Your task to perform on an android device: toggle data saver in the chrome app Image 0: 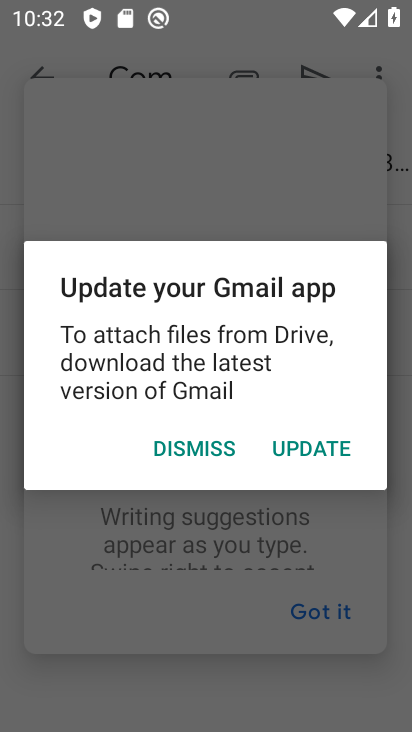
Step 0: press home button
Your task to perform on an android device: toggle data saver in the chrome app Image 1: 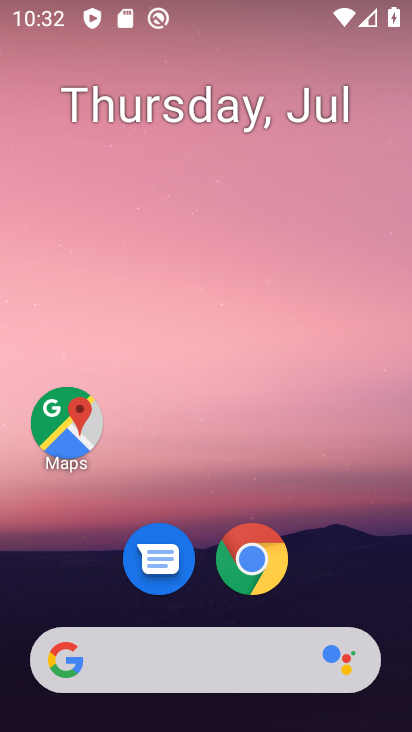
Step 1: click (265, 563)
Your task to perform on an android device: toggle data saver in the chrome app Image 2: 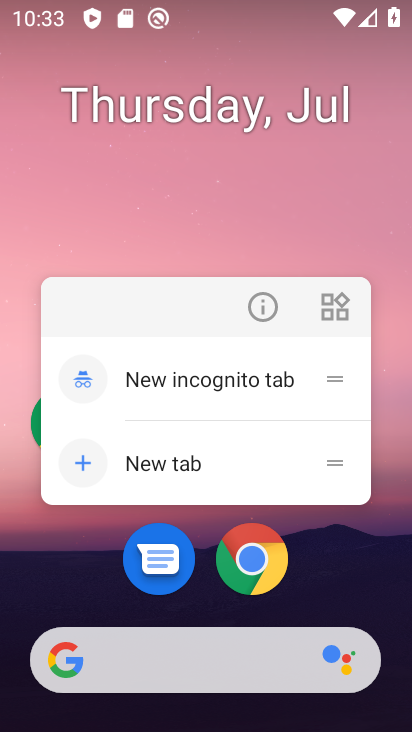
Step 2: click (248, 556)
Your task to perform on an android device: toggle data saver in the chrome app Image 3: 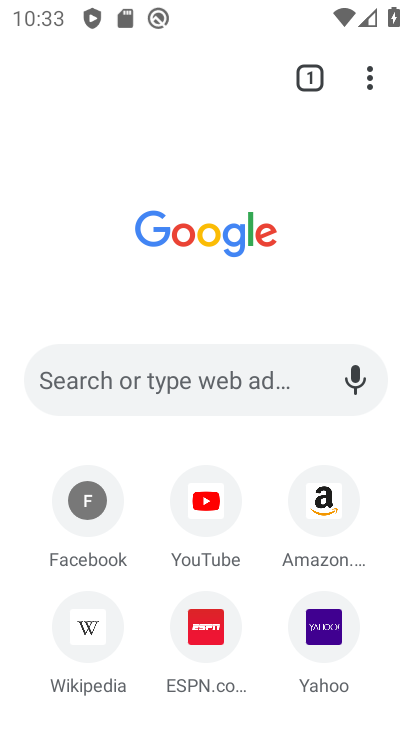
Step 3: drag from (374, 77) to (133, 603)
Your task to perform on an android device: toggle data saver in the chrome app Image 4: 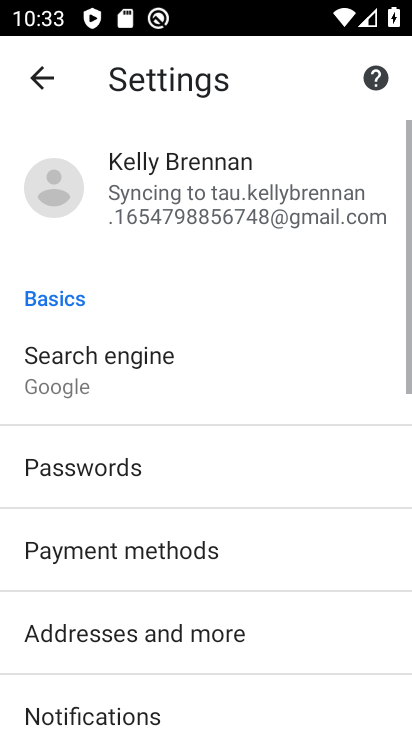
Step 4: drag from (135, 663) to (258, 55)
Your task to perform on an android device: toggle data saver in the chrome app Image 5: 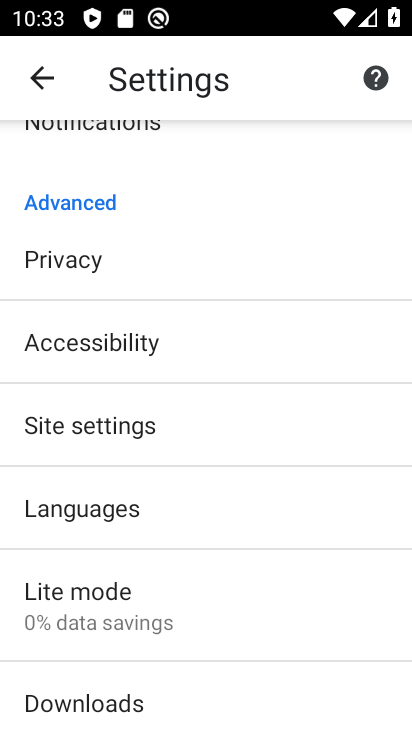
Step 5: click (127, 602)
Your task to perform on an android device: toggle data saver in the chrome app Image 6: 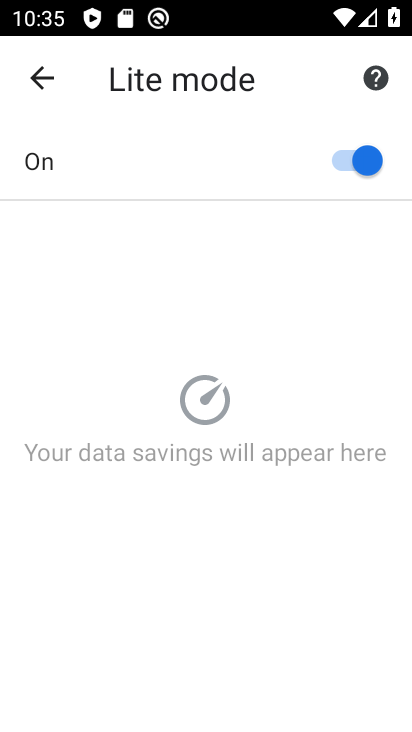
Step 6: task complete